Your task to perform on an android device: Open Yahoo.com Image 0: 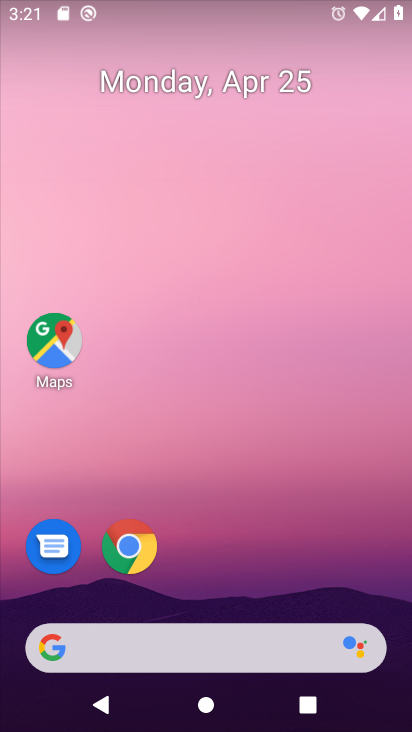
Step 0: click (128, 545)
Your task to perform on an android device: Open Yahoo.com Image 1: 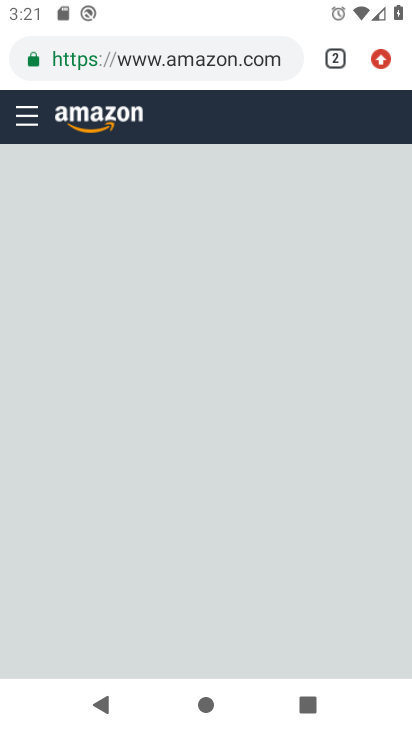
Step 1: click (371, 62)
Your task to perform on an android device: Open Yahoo.com Image 2: 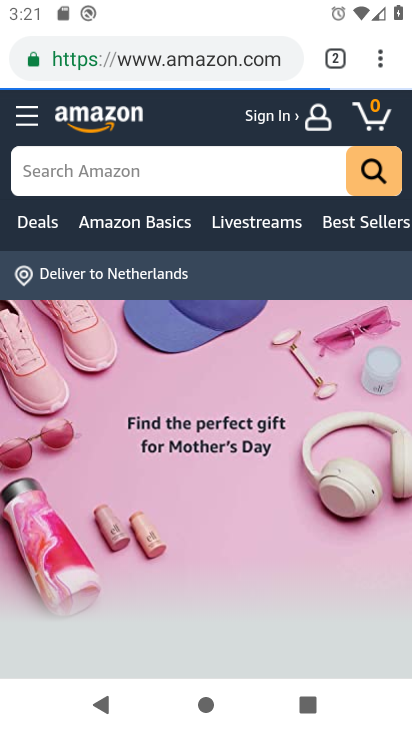
Step 2: click (143, 65)
Your task to perform on an android device: Open Yahoo.com Image 3: 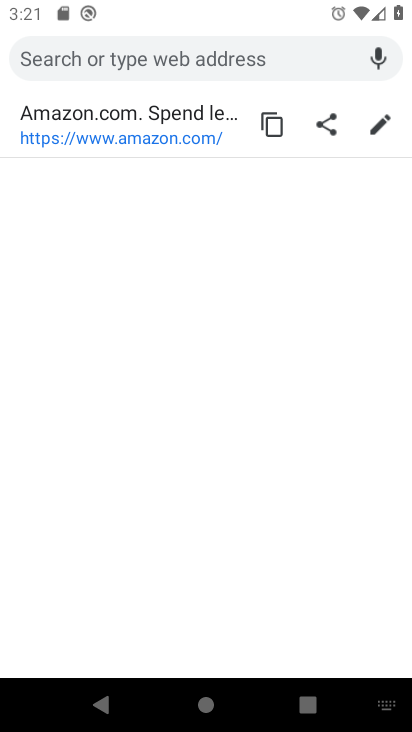
Step 3: type "yahoo.com"
Your task to perform on an android device: Open Yahoo.com Image 4: 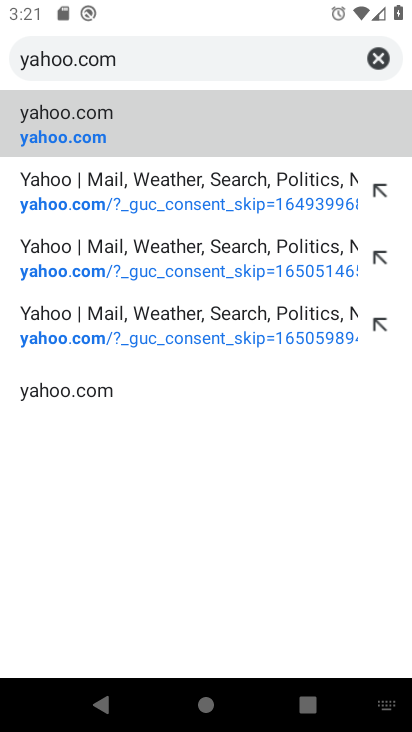
Step 4: click (79, 116)
Your task to perform on an android device: Open Yahoo.com Image 5: 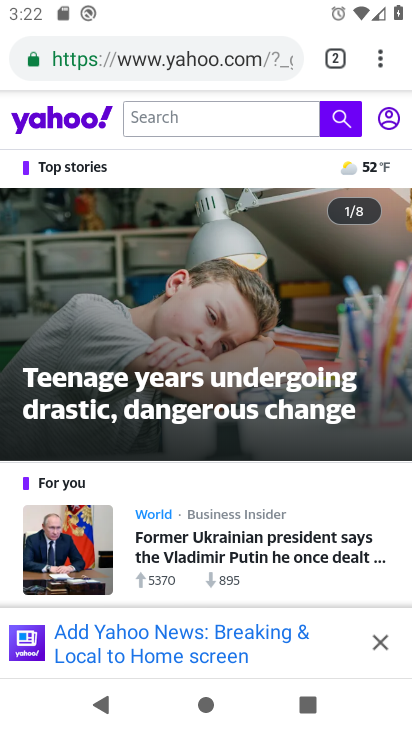
Step 5: task complete